Your task to perform on an android device: Go to eBay Image 0: 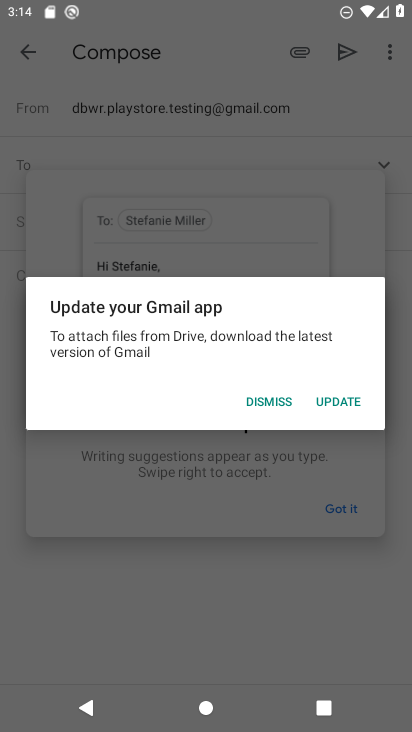
Step 0: press home button
Your task to perform on an android device: Go to eBay Image 1: 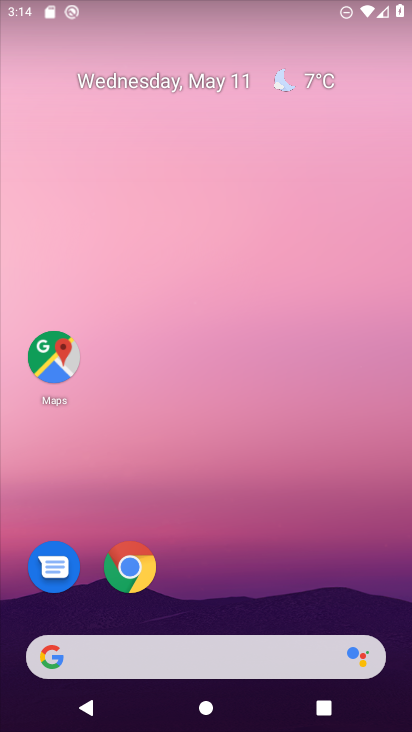
Step 1: click (126, 555)
Your task to perform on an android device: Go to eBay Image 2: 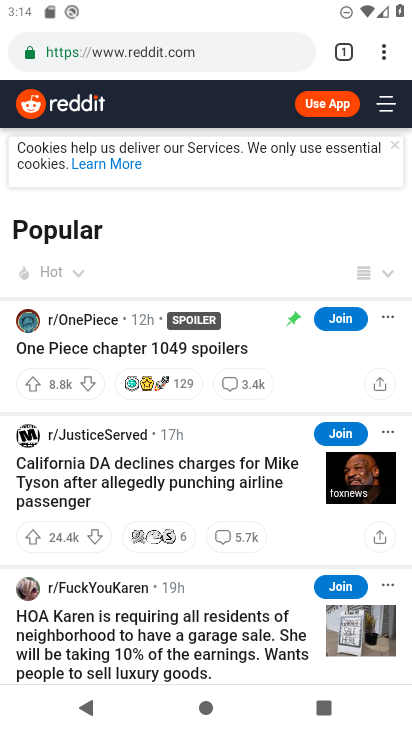
Step 2: click (389, 46)
Your task to perform on an android device: Go to eBay Image 3: 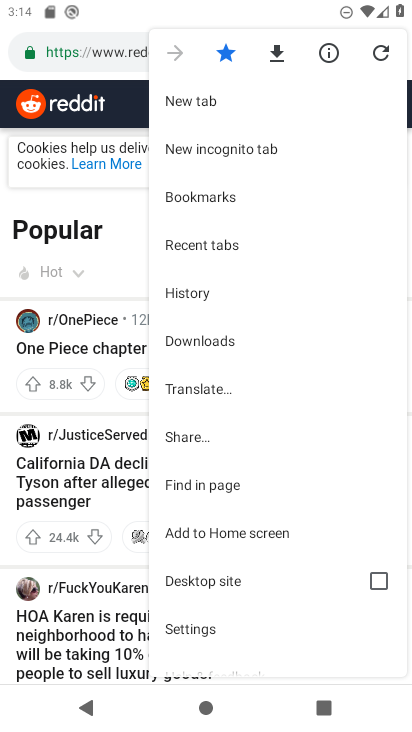
Step 3: click (47, 99)
Your task to perform on an android device: Go to eBay Image 4: 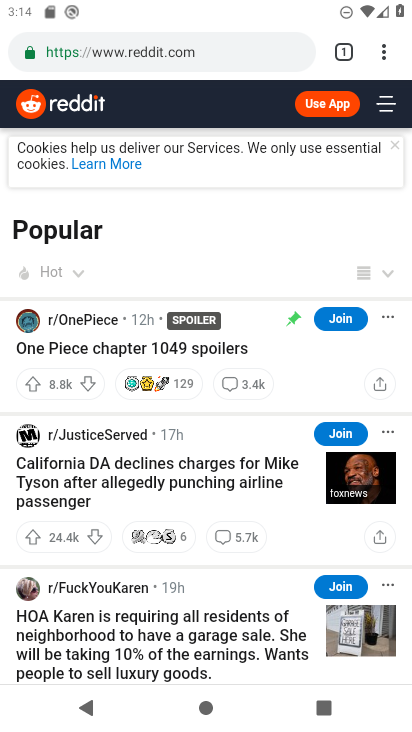
Step 4: click (135, 55)
Your task to perform on an android device: Go to eBay Image 5: 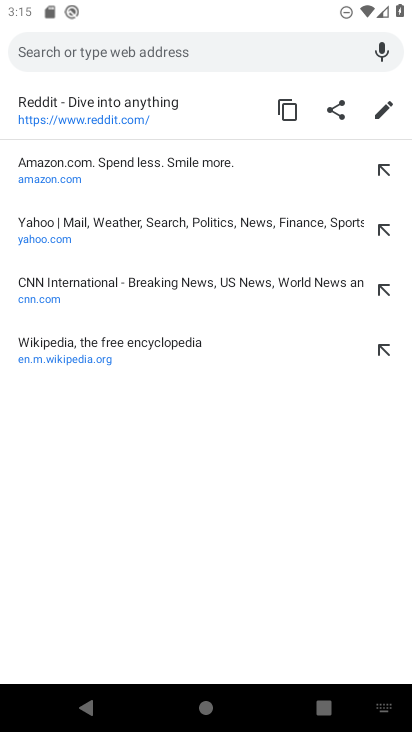
Step 5: type "ebay.com"
Your task to perform on an android device: Go to eBay Image 6: 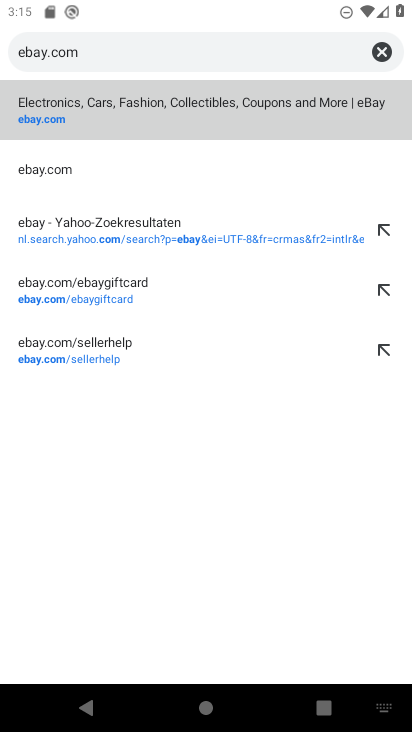
Step 6: click (96, 112)
Your task to perform on an android device: Go to eBay Image 7: 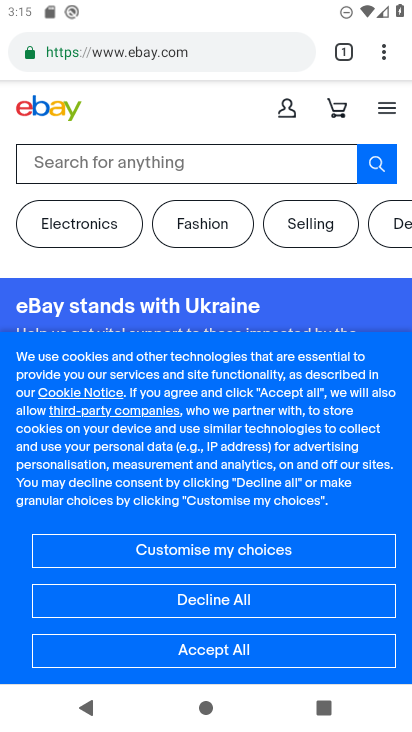
Step 7: task complete